Your task to perform on an android device: remove spam from my inbox in the gmail app Image 0: 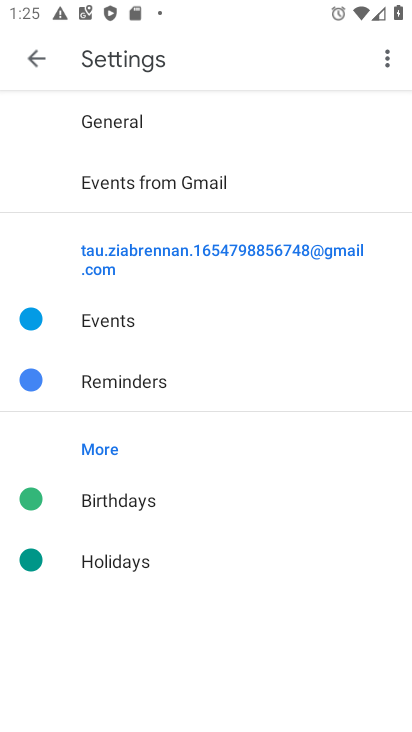
Step 0: press home button
Your task to perform on an android device: remove spam from my inbox in the gmail app Image 1: 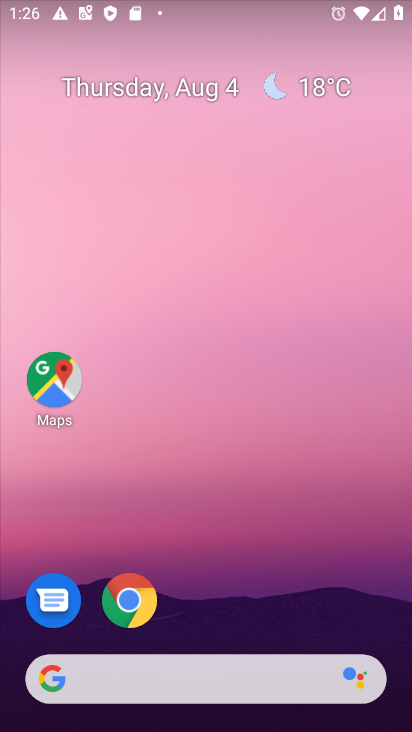
Step 1: drag from (191, 685) to (331, 125)
Your task to perform on an android device: remove spam from my inbox in the gmail app Image 2: 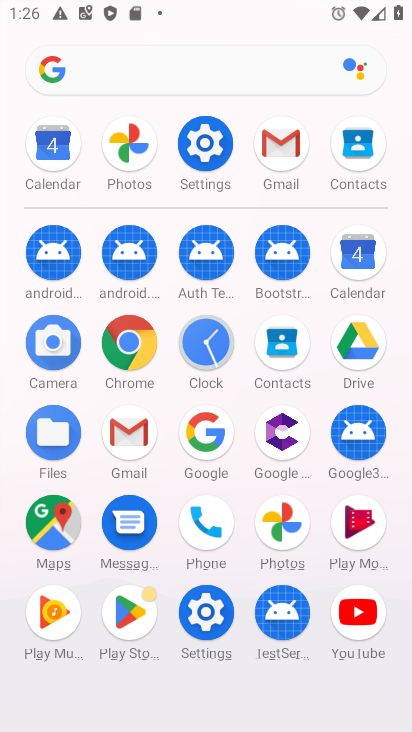
Step 2: click (288, 159)
Your task to perform on an android device: remove spam from my inbox in the gmail app Image 3: 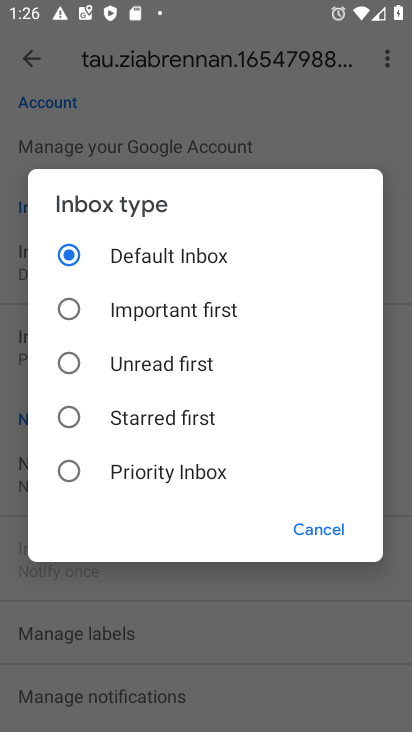
Step 3: click (314, 533)
Your task to perform on an android device: remove spam from my inbox in the gmail app Image 4: 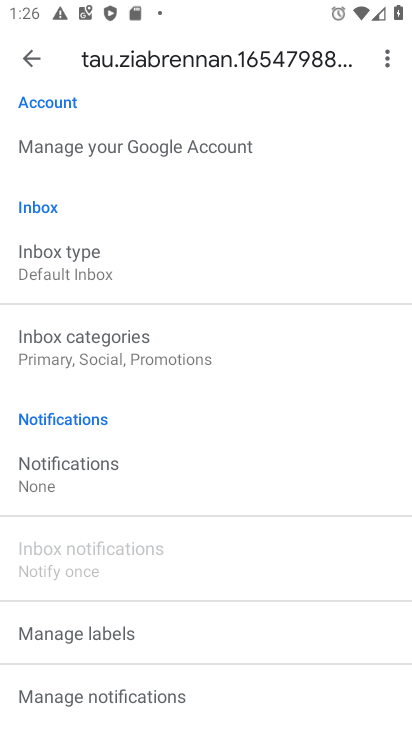
Step 4: click (34, 58)
Your task to perform on an android device: remove spam from my inbox in the gmail app Image 5: 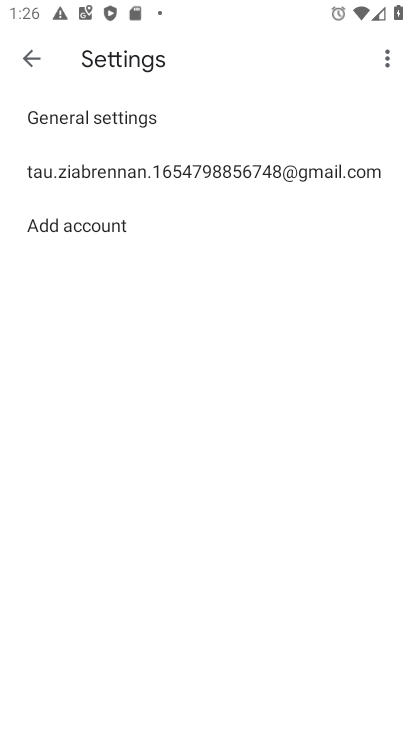
Step 5: click (34, 58)
Your task to perform on an android device: remove spam from my inbox in the gmail app Image 6: 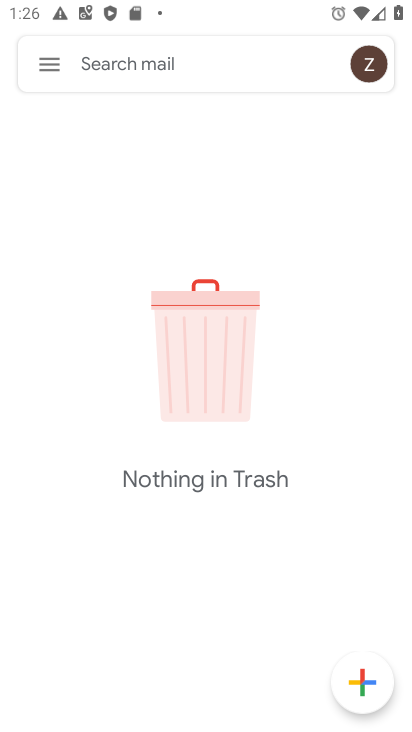
Step 6: click (42, 62)
Your task to perform on an android device: remove spam from my inbox in the gmail app Image 7: 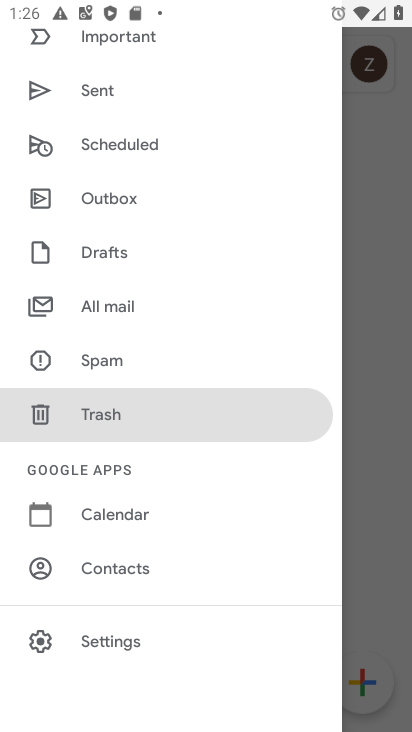
Step 7: click (99, 355)
Your task to perform on an android device: remove spam from my inbox in the gmail app Image 8: 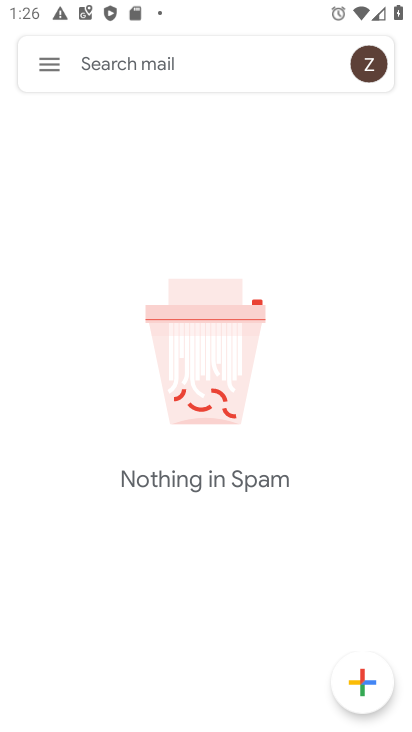
Step 8: task complete